Your task to perform on an android device: Go to settings Image 0: 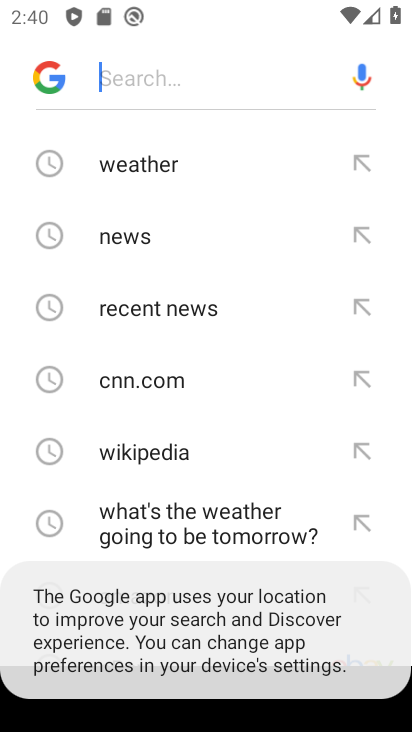
Step 0: press home button
Your task to perform on an android device: Go to settings Image 1: 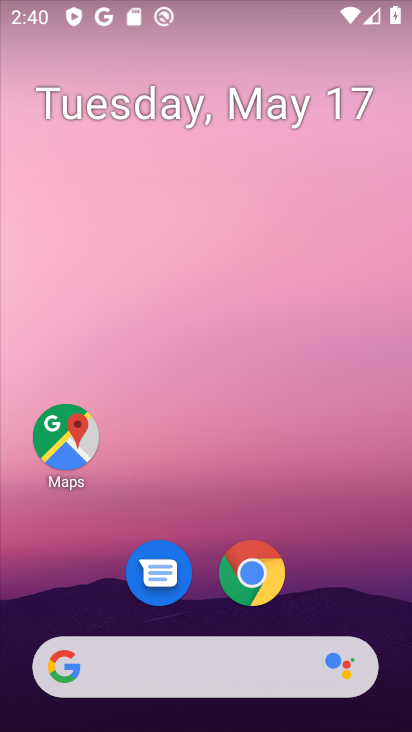
Step 1: drag from (349, 478) to (388, 109)
Your task to perform on an android device: Go to settings Image 2: 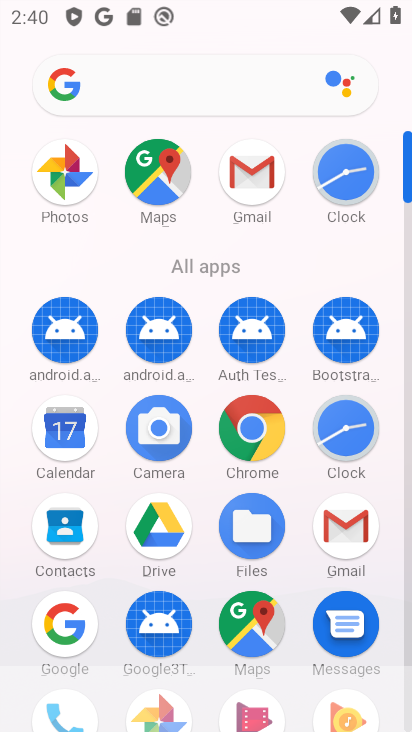
Step 2: drag from (250, 595) to (323, 297)
Your task to perform on an android device: Go to settings Image 3: 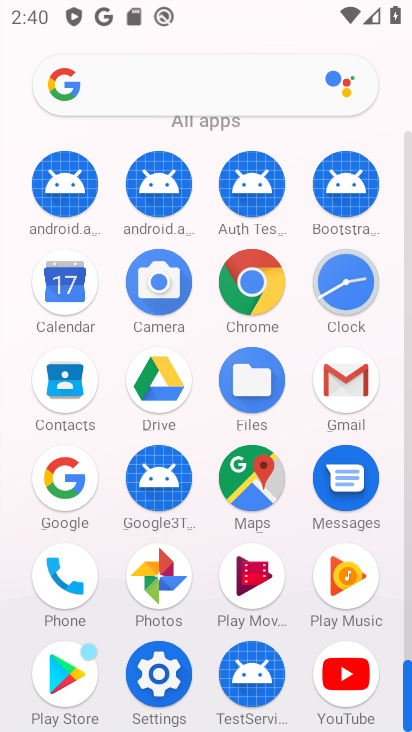
Step 3: click (161, 657)
Your task to perform on an android device: Go to settings Image 4: 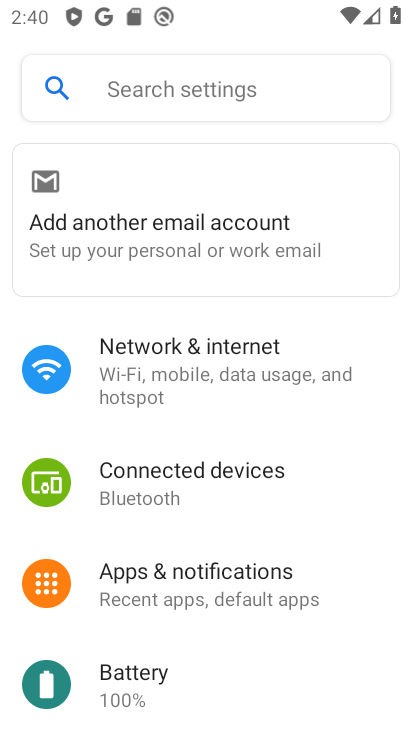
Step 4: task complete